Your task to perform on an android device: Open accessibility settings Image 0: 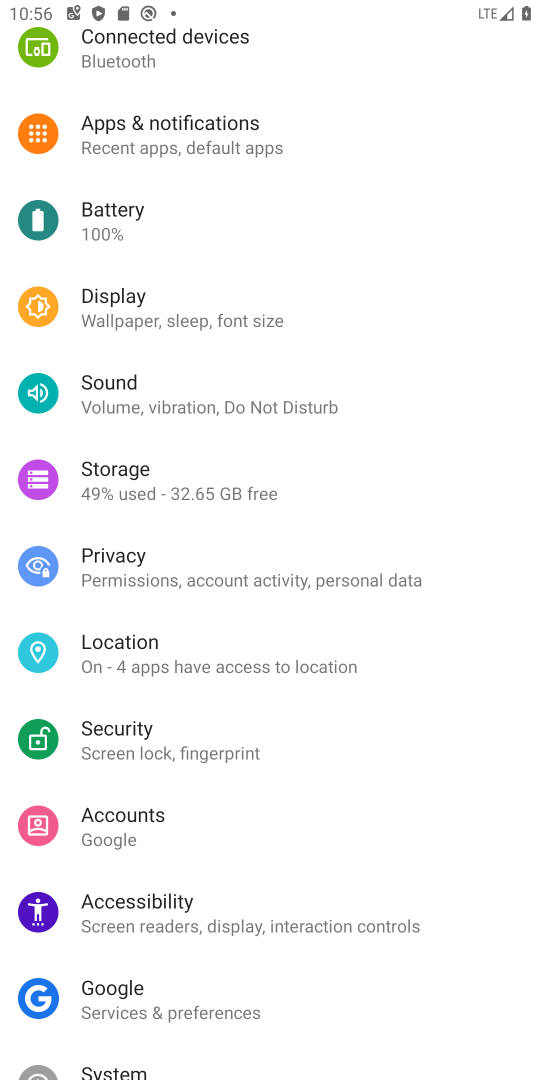
Step 0: click (187, 898)
Your task to perform on an android device: Open accessibility settings Image 1: 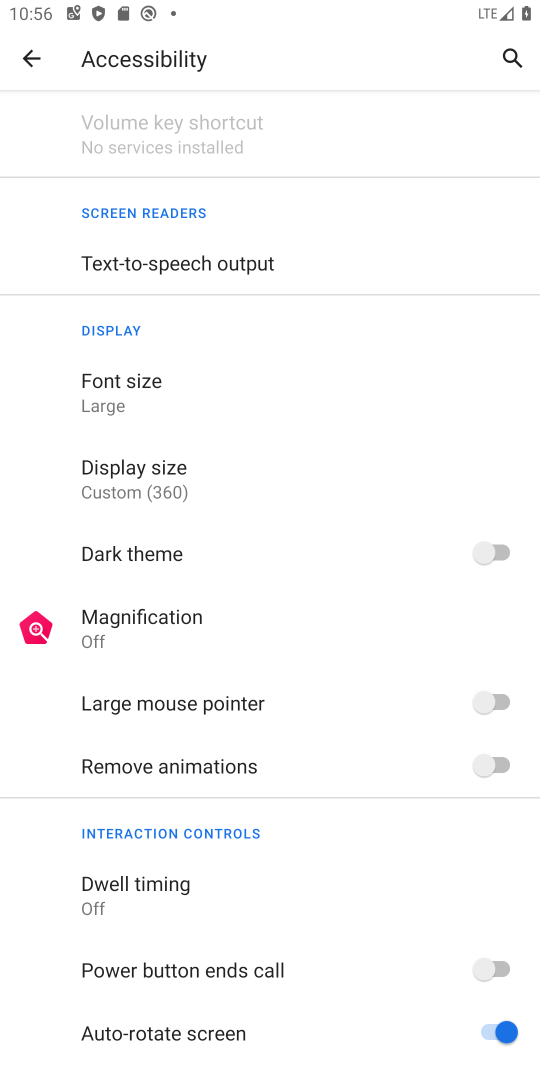
Step 1: task complete